Your task to perform on an android device: Open the phone app and click the voicemail tab. Image 0: 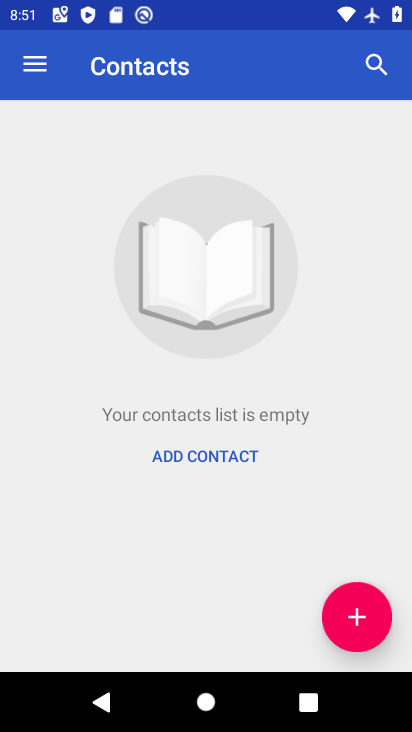
Step 0: press home button
Your task to perform on an android device: Open the phone app and click the voicemail tab. Image 1: 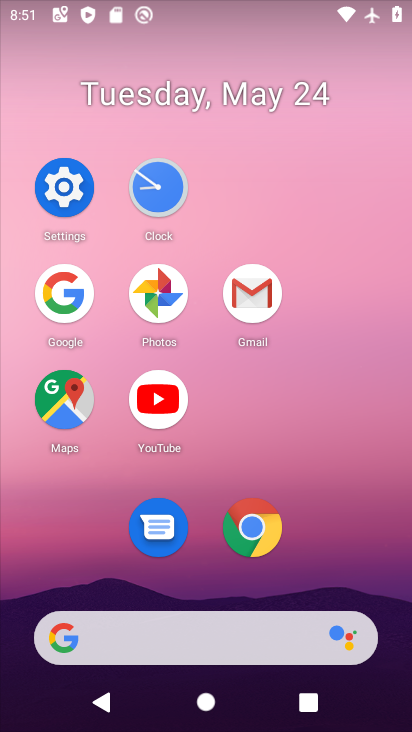
Step 1: drag from (360, 430) to (364, 177)
Your task to perform on an android device: Open the phone app and click the voicemail tab. Image 2: 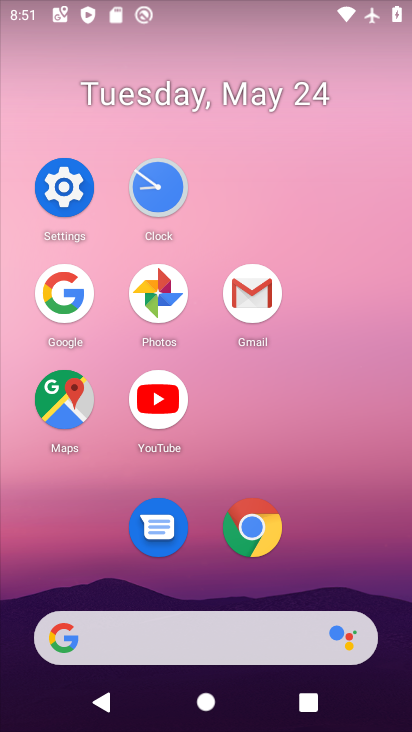
Step 2: drag from (319, 600) to (366, 163)
Your task to perform on an android device: Open the phone app and click the voicemail tab. Image 3: 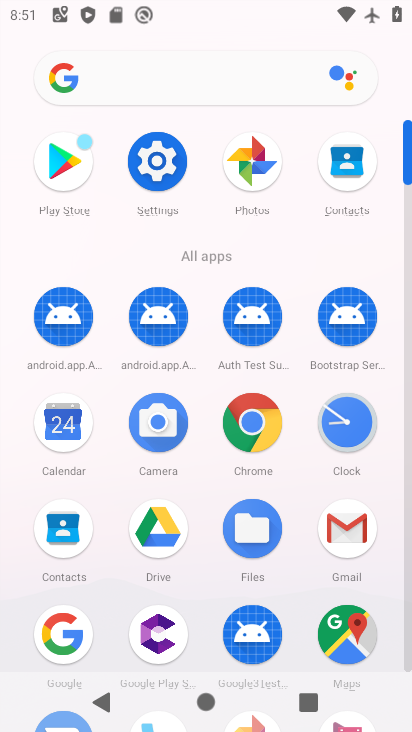
Step 3: drag from (279, 574) to (317, 174)
Your task to perform on an android device: Open the phone app and click the voicemail tab. Image 4: 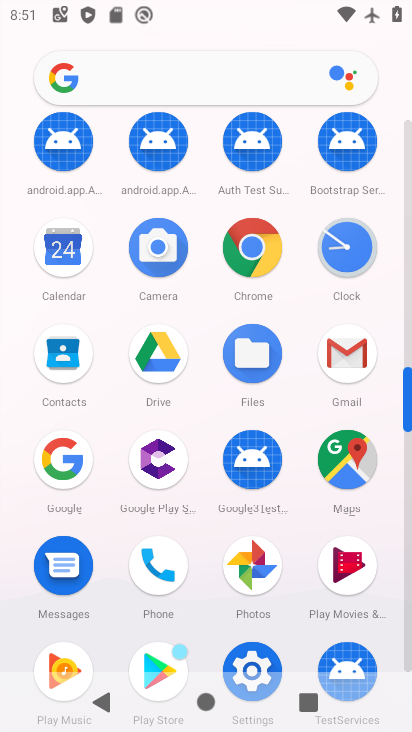
Step 4: click (146, 568)
Your task to perform on an android device: Open the phone app and click the voicemail tab. Image 5: 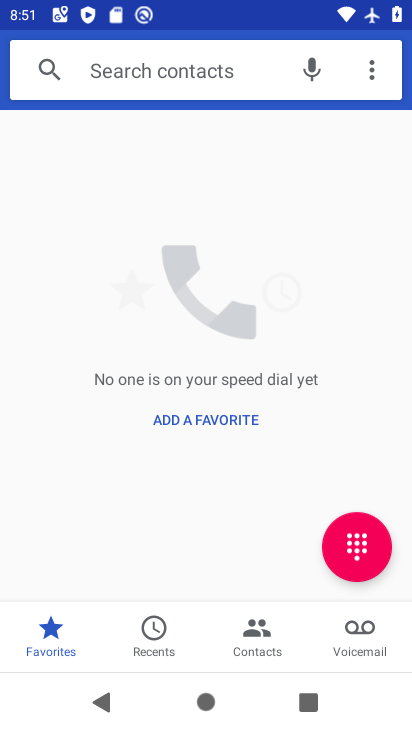
Step 5: click (352, 627)
Your task to perform on an android device: Open the phone app and click the voicemail tab. Image 6: 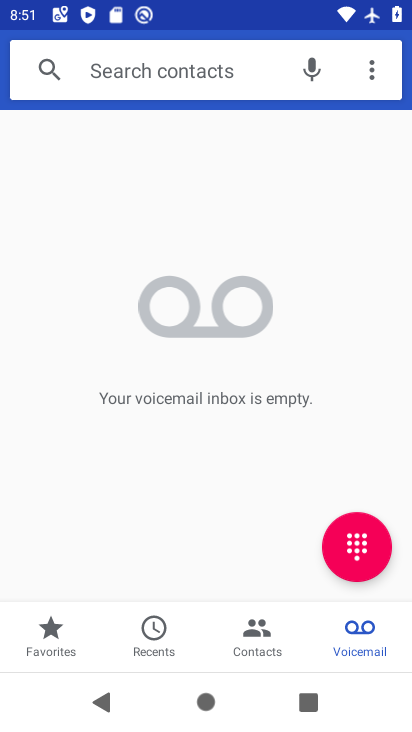
Step 6: task complete